Your task to perform on an android device: Do I have any events tomorrow? Image 0: 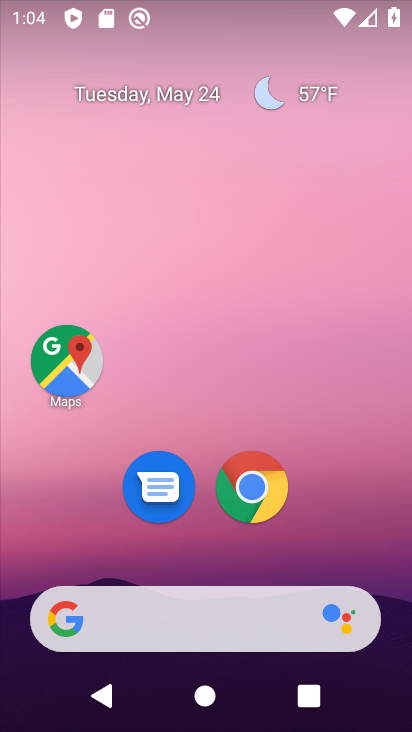
Step 0: drag from (222, 720) to (195, 193)
Your task to perform on an android device: Do I have any events tomorrow? Image 1: 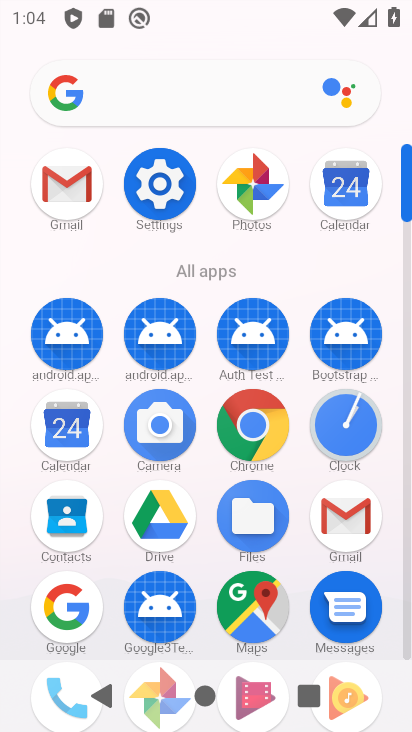
Step 1: click (56, 433)
Your task to perform on an android device: Do I have any events tomorrow? Image 2: 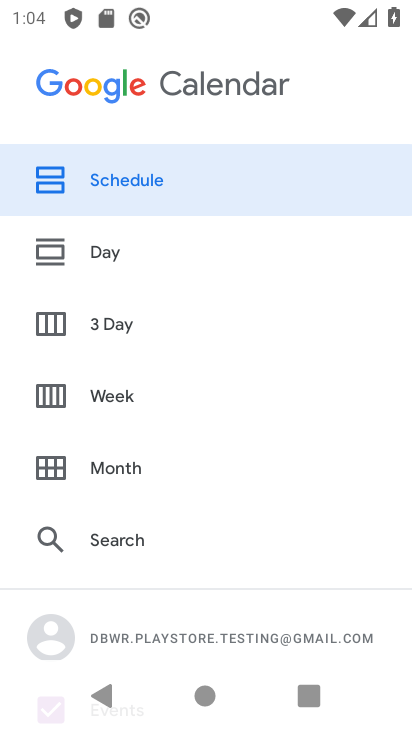
Step 2: drag from (219, 305) to (205, 555)
Your task to perform on an android device: Do I have any events tomorrow? Image 3: 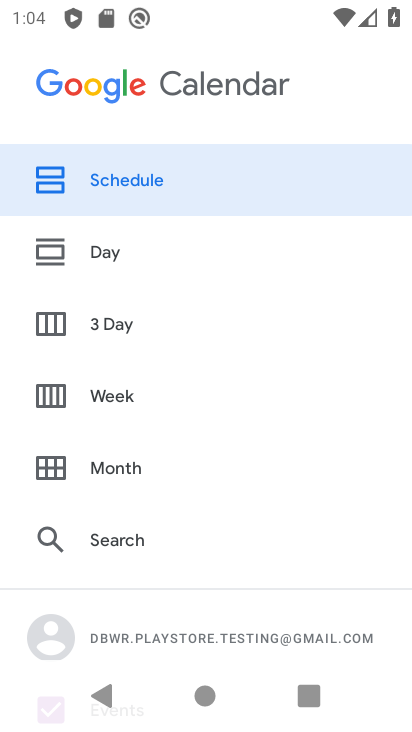
Step 3: click (166, 167)
Your task to perform on an android device: Do I have any events tomorrow? Image 4: 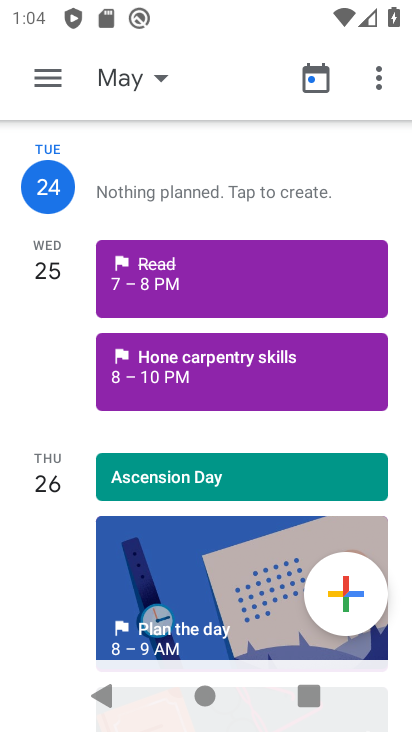
Step 4: click (123, 76)
Your task to perform on an android device: Do I have any events tomorrow? Image 5: 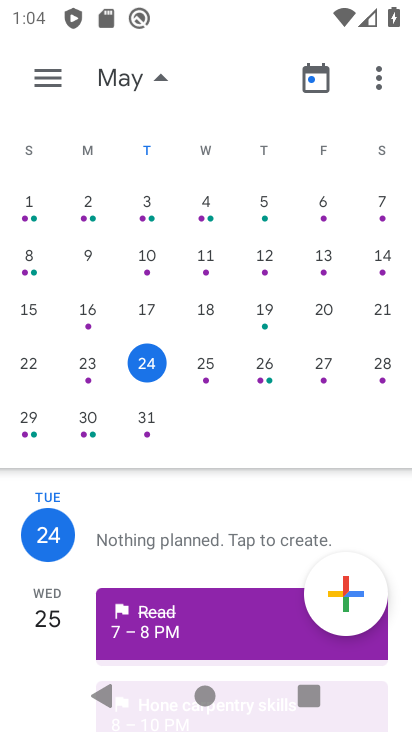
Step 5: click (202, 352)
Your task to perform on an android device: Do I have any events tomorrow? Image 6: 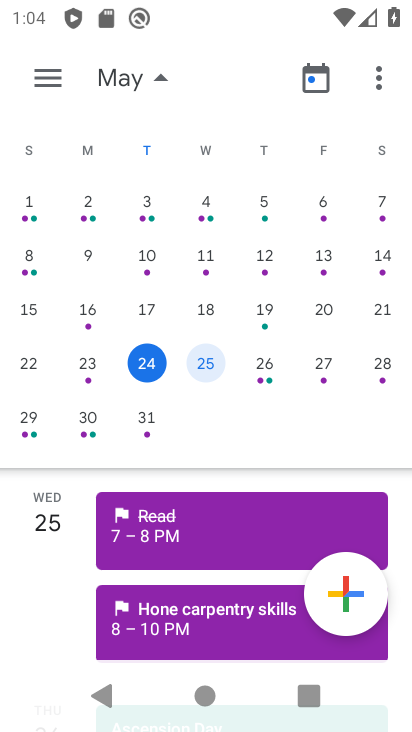
Step 6: click (158, 76)
Your task to perform on an android device: Do I have any events tomorrow? Image 7: 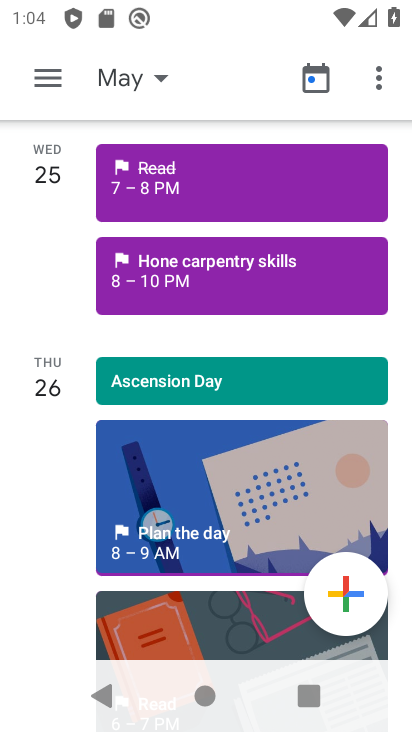
Step 7: task complete